Your task to perform on an android device: turn on data saver in the chrome app Image 0: 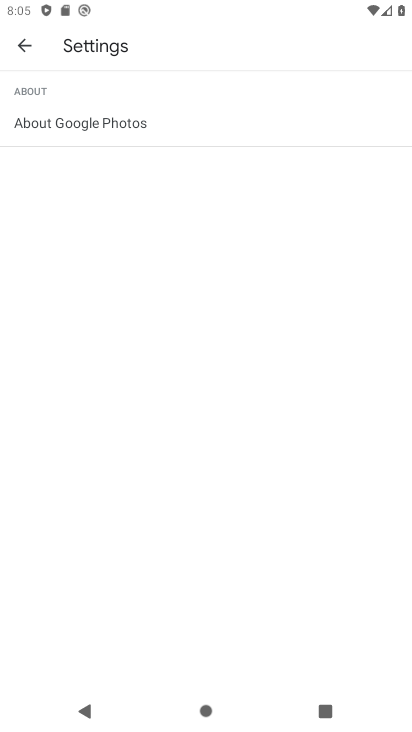
Step 0: task impossible